Your task to perform on an android device: turn on priority inbox in the gmail app Image 0: 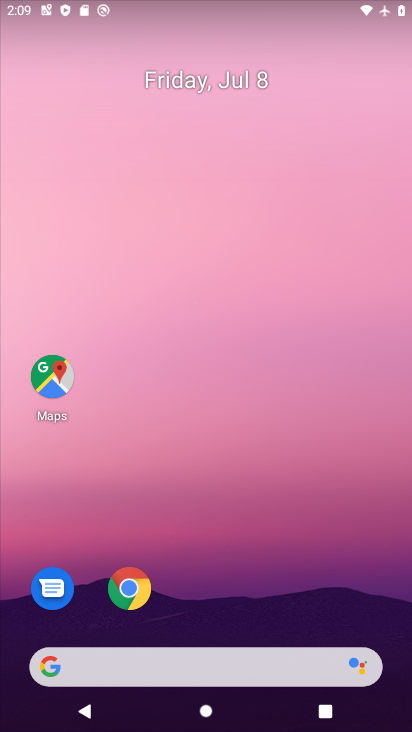
Step 0: press home button
Your task to perform on an android device: turn on priority inbox in the gmail app Image 1: 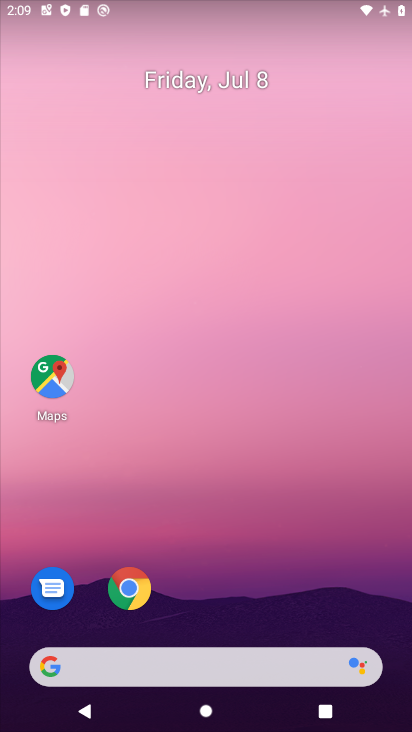
Step 1: drag from (257, 558) to (274, 63)
Your task to perform on an android device: turn on priority inbox in the gmail app Image 2: 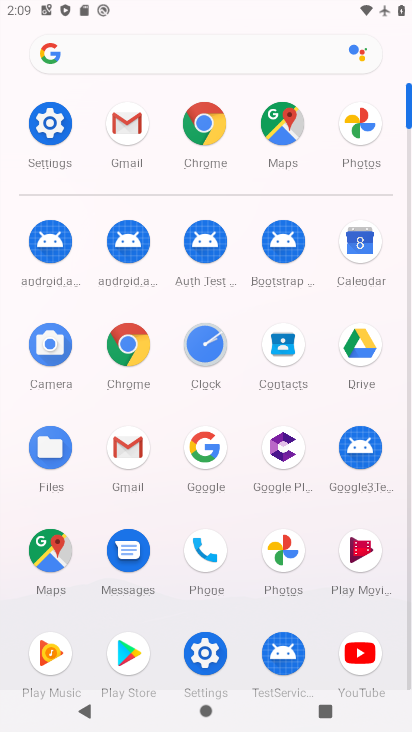
Step 2: click (122, 116)
Your task to perform on an android device: turn on priority inbox in the gmail app Image 3: 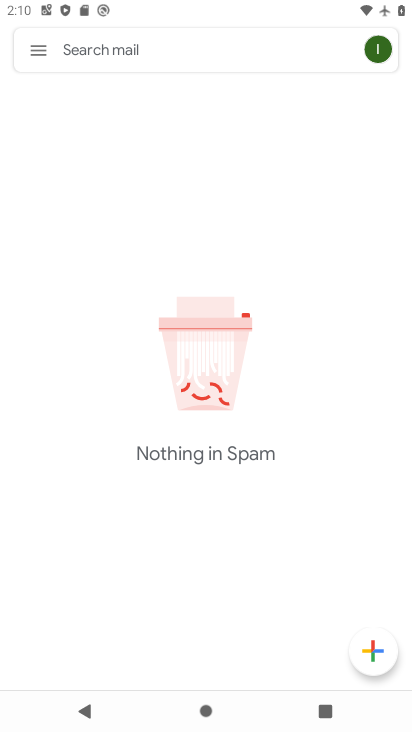
Step 3: click (38, 54)
Your task to perform on an android device: turn on priority inbox in the gmail app Image 4: 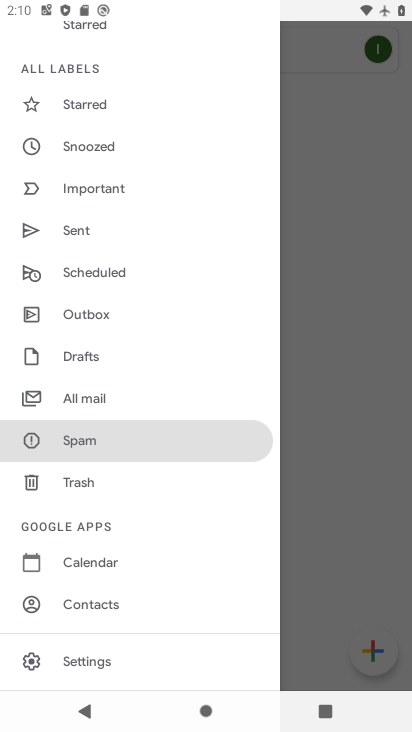
Step 4: click (75, 665)
Your task to perform on an android device: turn on priority inbox in the gmail app Image 5: 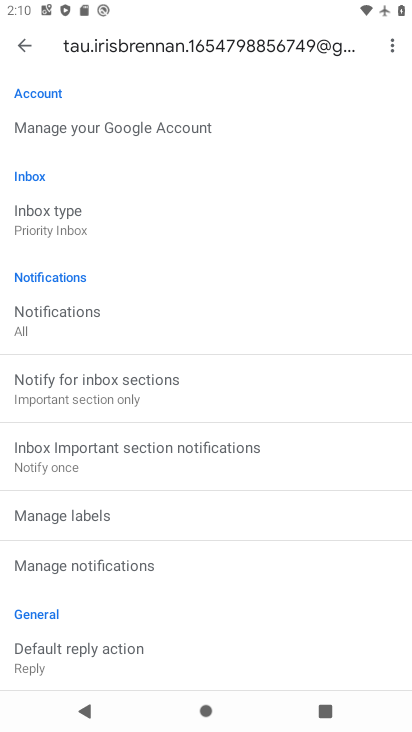
Step 5: click (47, 219)
Your task to perform on an android device: turn on priority inbox in the gmail app Image 6: 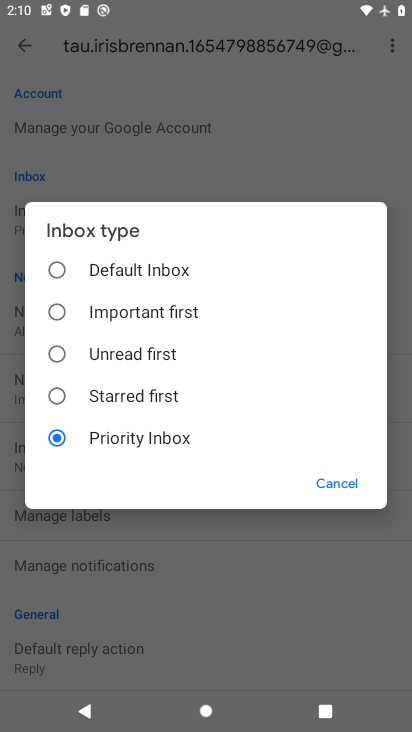
Step 6: task complete